Your task to perform on an android device: turn off picture-in-picture Image 0: 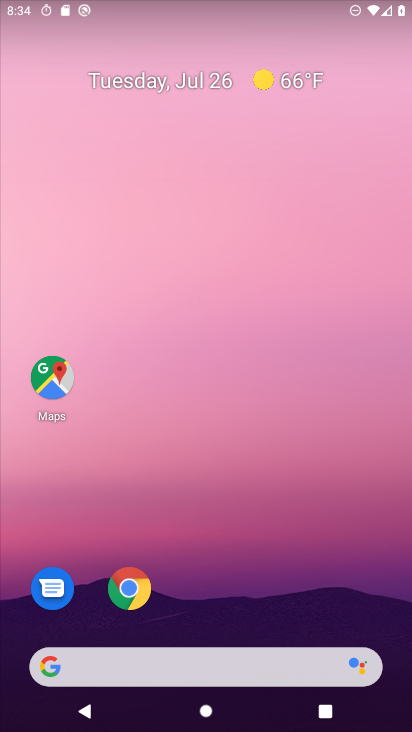
Step 0: drag from (224, 731) to (234, 147)
Your task to perform on an android device: turn off picture-in-picture Image 1: 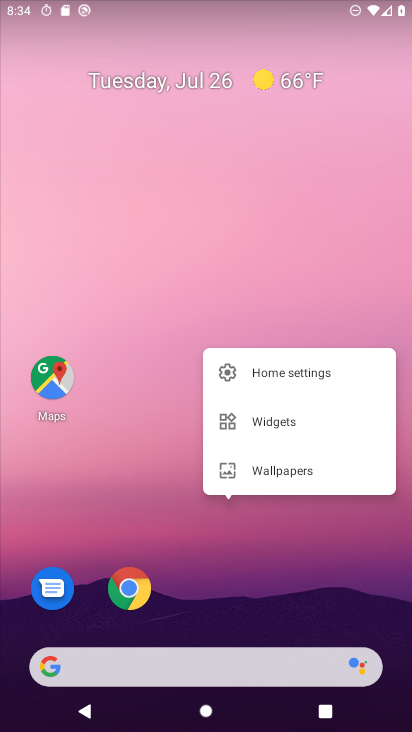
Step 1: click (169, 308)
Your task to perform on an android device: turn off picture-in-picture Image 2: 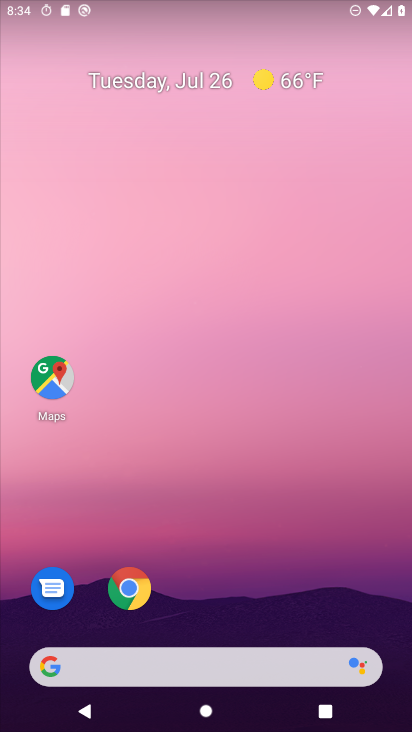
Step 2: drag from (226, 716) to (222, 262)
Your task to perform on an android device: turn off picture-in-picture Image 3: 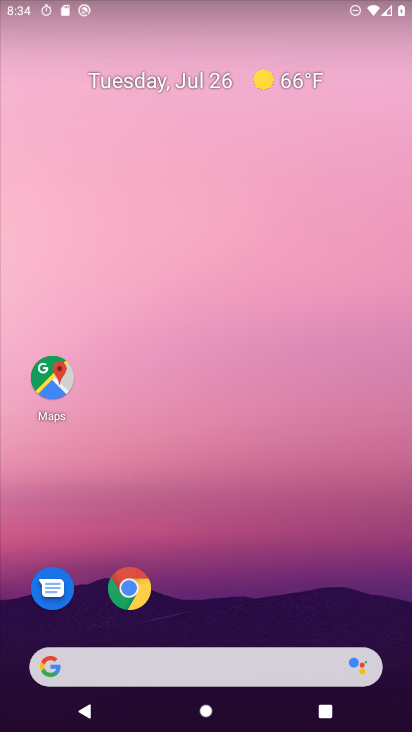
Step 3: drag from (229, 589) to (229, 203)
Your task to perform on an android device: turn off picture-in-picture Image 4: 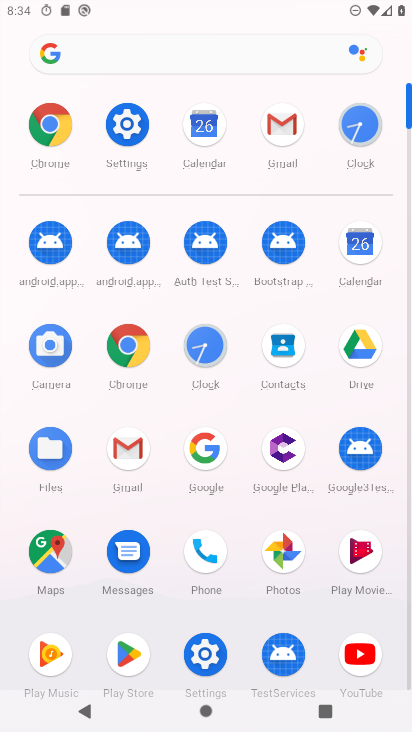
Step 4: click (209, 666)
Your task to perform on an android device: turn off picture-in-picture Image 5: 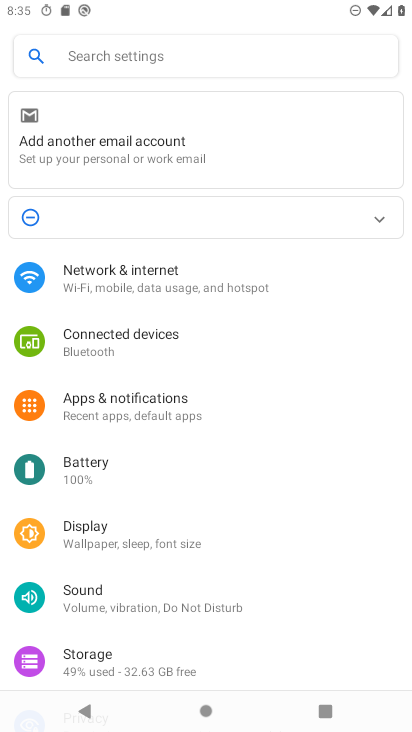
Step 5: click (110, 403)
Your task to perform on an android device: turn off picture-in-picture Image 6: 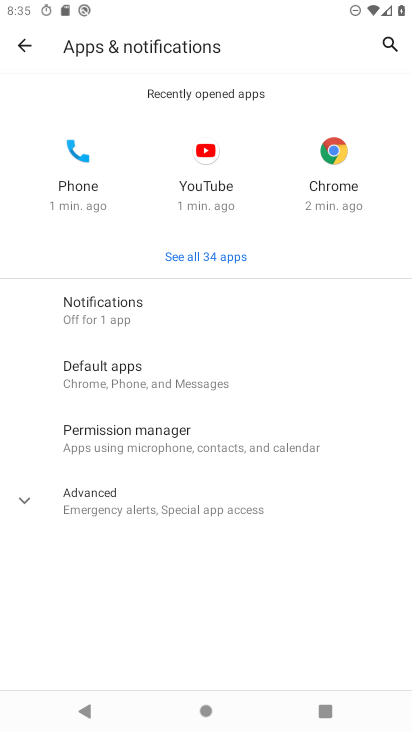
Step 6: click (103, 505)
Your task to perform on an android device: turn off picture-in-picture Image 7: 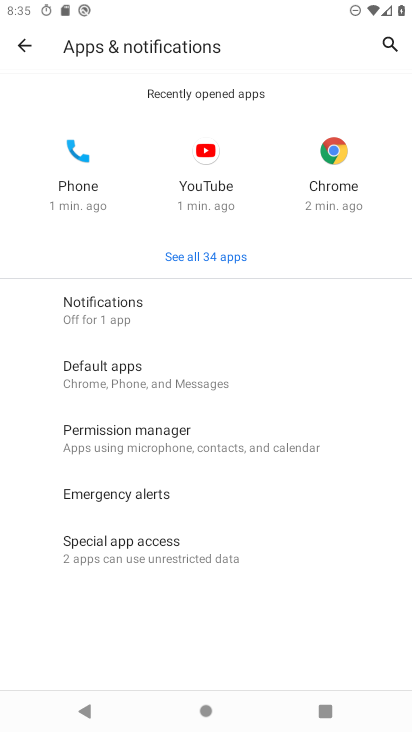
Step 7: click (105, 551)
Your task to perform on an android device: turn off picture-in-picture Image 8: 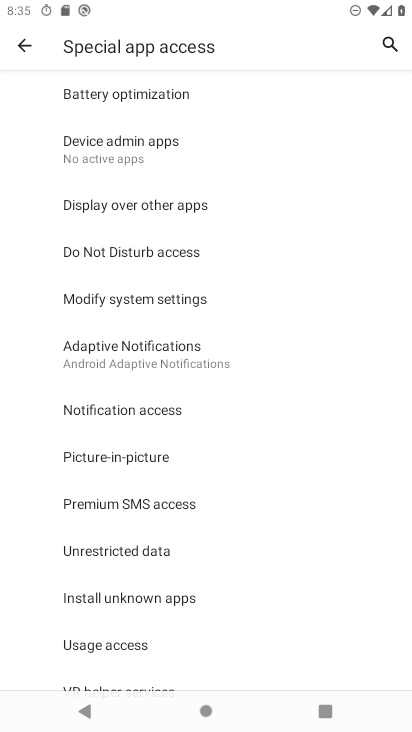
Step 8: click (112, 452)
Your task to perform on an android device: turn off picture-in-picture Image 9: 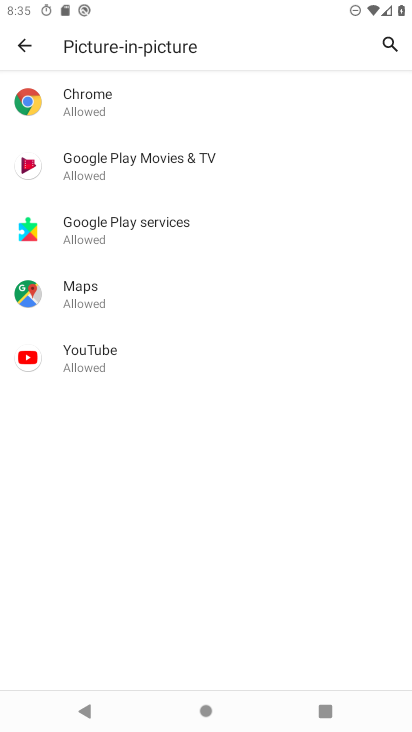
Step 9: click (83, 349)
Your task to perform on an android device: turn off picture-in-picture Image 10: 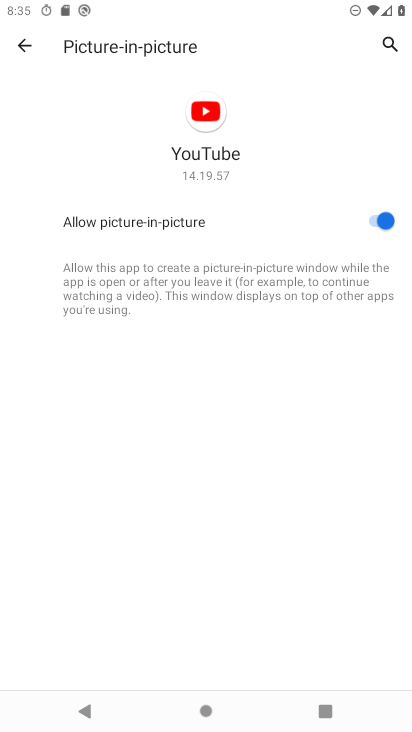
Step 10: click (387, 217)
Your task to perform on an android device: turn off picture-in-picture Image 11: 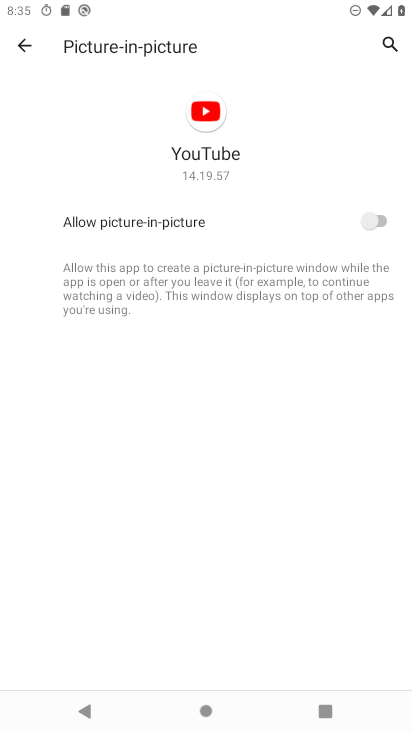
Step 11: task complete